Your task to perform on an android device: open the mobile data screen to see how much data has been used Image 0: 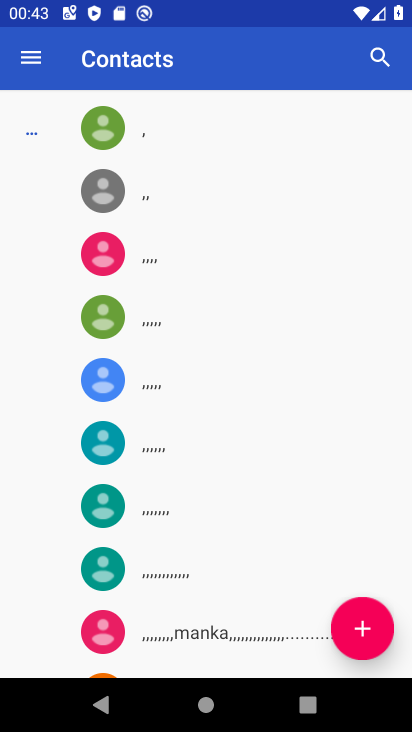
Step 0: press home button
Your task to perform on an android device: open the mobile data screen to see how much data has been used Image 1: 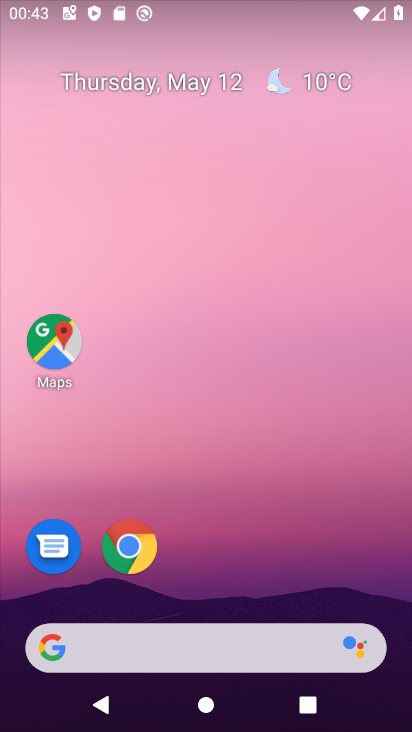
Step 1: drag from (128, 599) to (105, 230)
Your task to perform on an android device: open the mobile data screen to see how much data has been used Image 2: 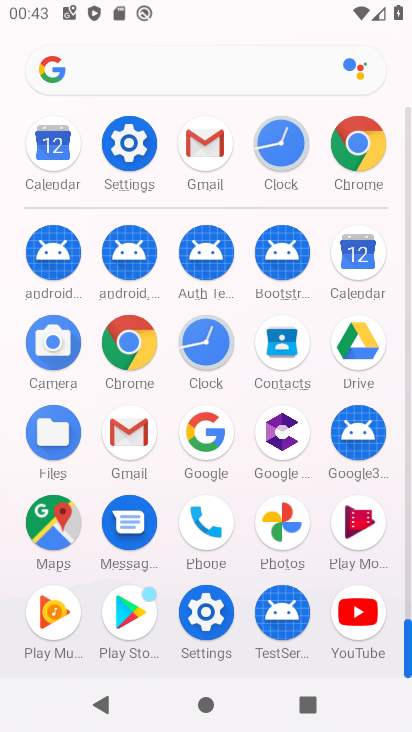
Step 2: click (205, 613)
Your task to perform on an android device: open the mobile data screen to see how much data has been used Image 3: 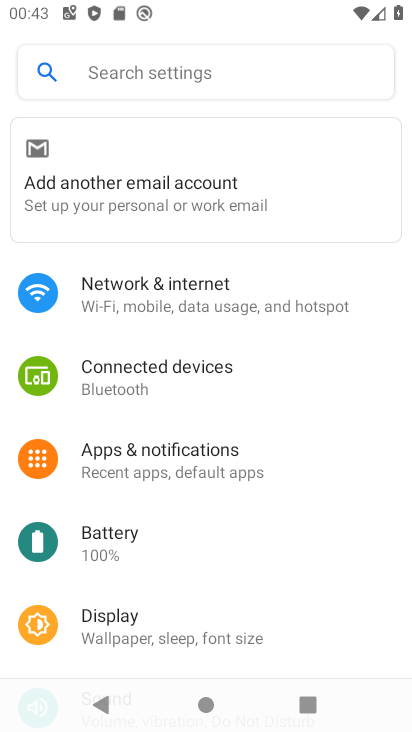
Step 3: click (197, 318)
Your task to perform on an android device: open the mobile data screen to see how much data has been used Image 4: 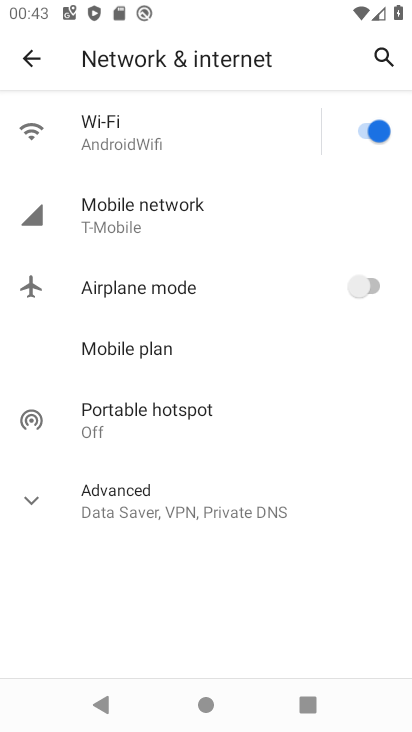
Step 4: click (155, 217)
Your task to perform on an android device: open the mobile data screen to see how much data has been used Image 5: 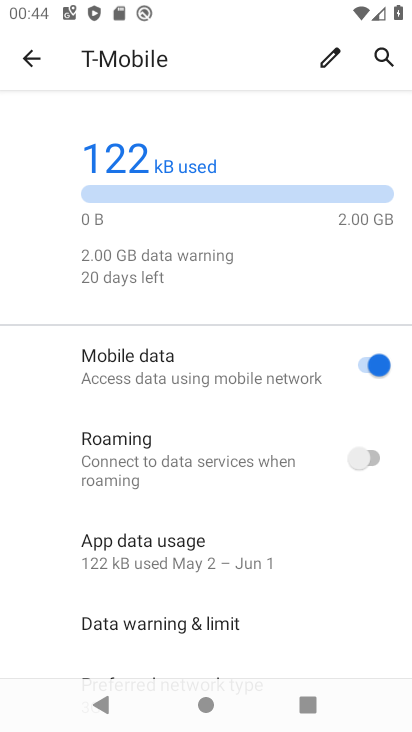
Step 5: task complete